Your task to perform on an android device: toggle data saver in the chrome app Image 0: 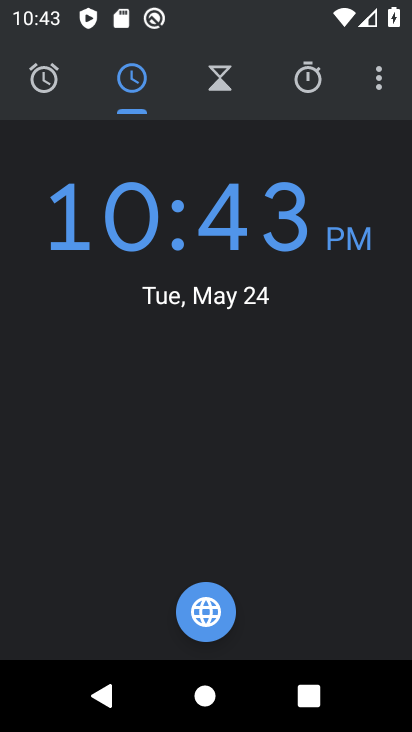
Step 0: press back button
Your task to perform on an android device: toggle data saver in the chrome app Image 1: 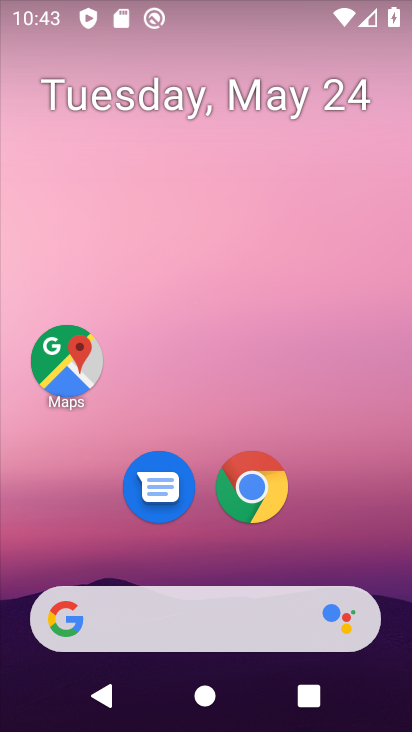
Step 1: click (248, 471)
Your task to perform on an android device: toggle data saver in the chrome app Image 2: 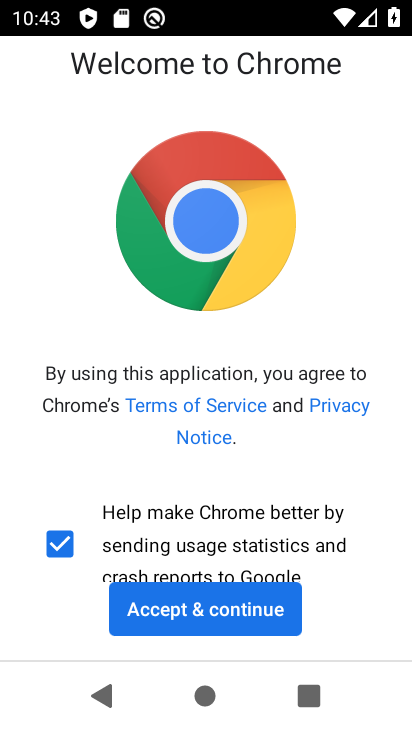
Step 2: click (198, 608)
Your task to perform on an android device: toggle data saver in the chrome app Image 3: 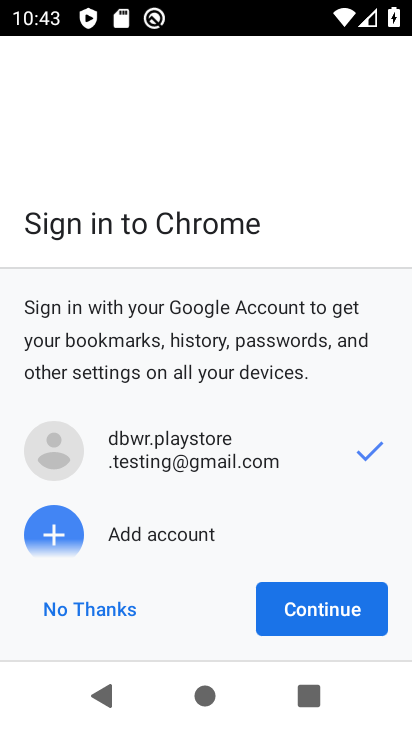
Step 3: click (296, 604)
Your task to perform on an android device: toggle data saver in the chrome app Image 4: 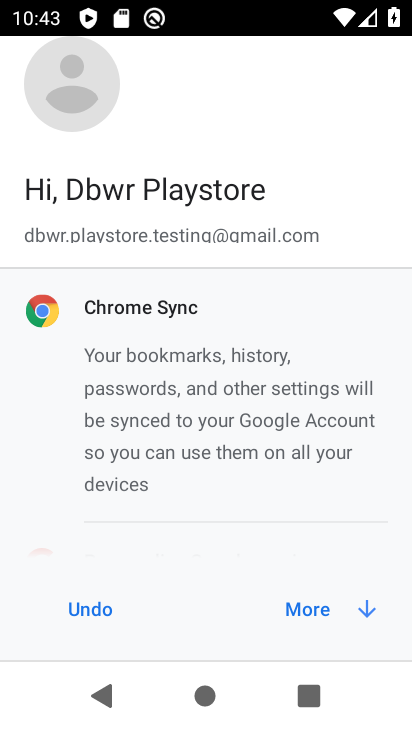
Step 4: click (299, 605)
Your task to perform on an android device: toggle data saver in the chrome app Image 5: 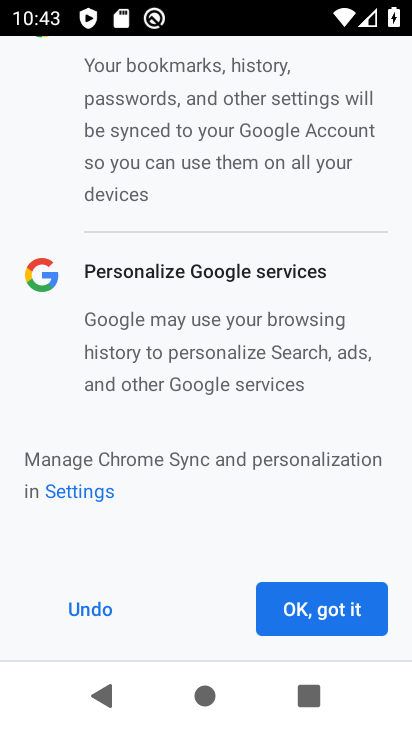
Step 5: click (294, 612)
Your task to perform on an android device: toggle data saver in the chrome app Image 6: 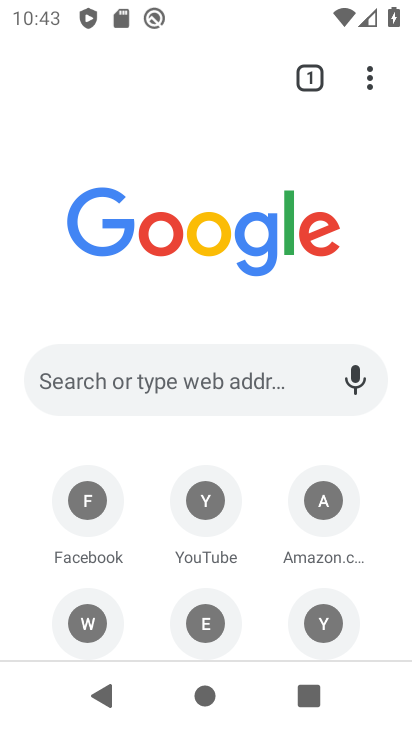
Step 6: drag from (367, 77) to (150, 530)
Your task to perform on an android device: toggle data saver in the chrome app Image 7: 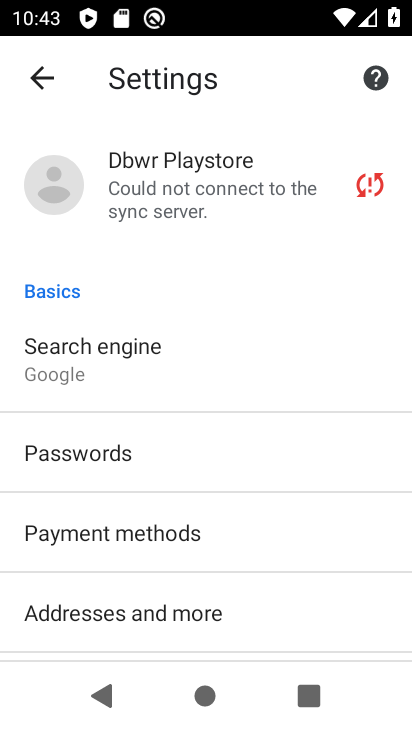
Step 7: drag from (138, 608) to (212, 212)
Your task to perform on an android device: toggle data saver in the chrome app Image 8: 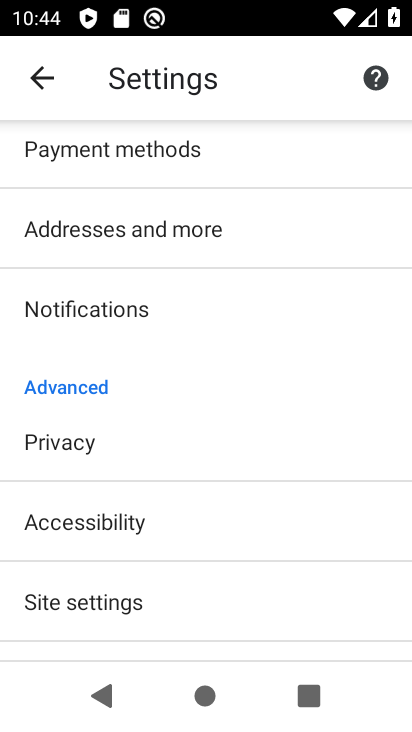
Step 8: drag from (117, 567) to (173, 247)
Your task to perform on an android device: toggle data saver in the chrome app Image 9: 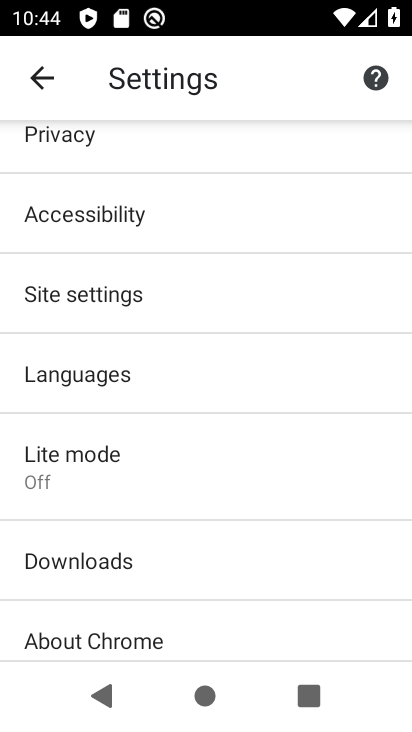
Step 9: click (123, 490)
Your task to perform on an android device: toggle data saver in the chrome app Image 10: 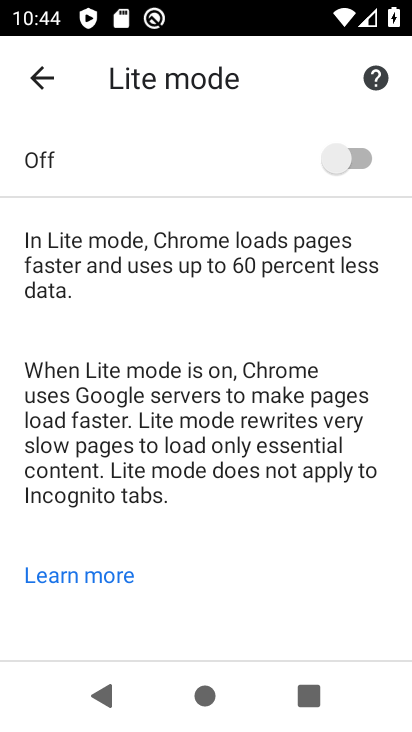
Step 10: click (341, 154)
Your task to perform on an android device: toggle data saver in the chrome app Image 11: 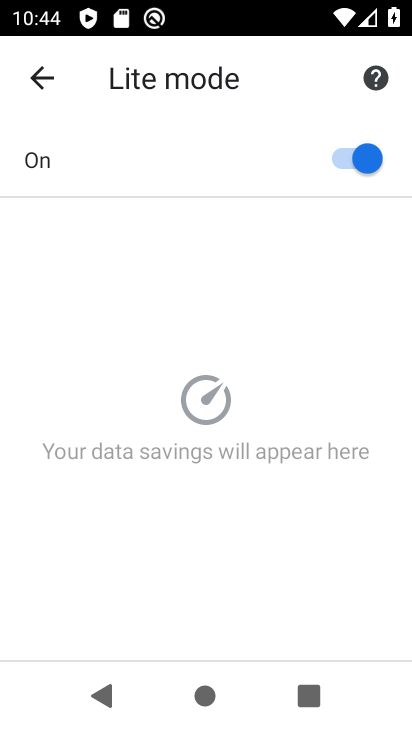
Step 11: task complete